Your task to perform on an android device: turn on wifi Image 0: 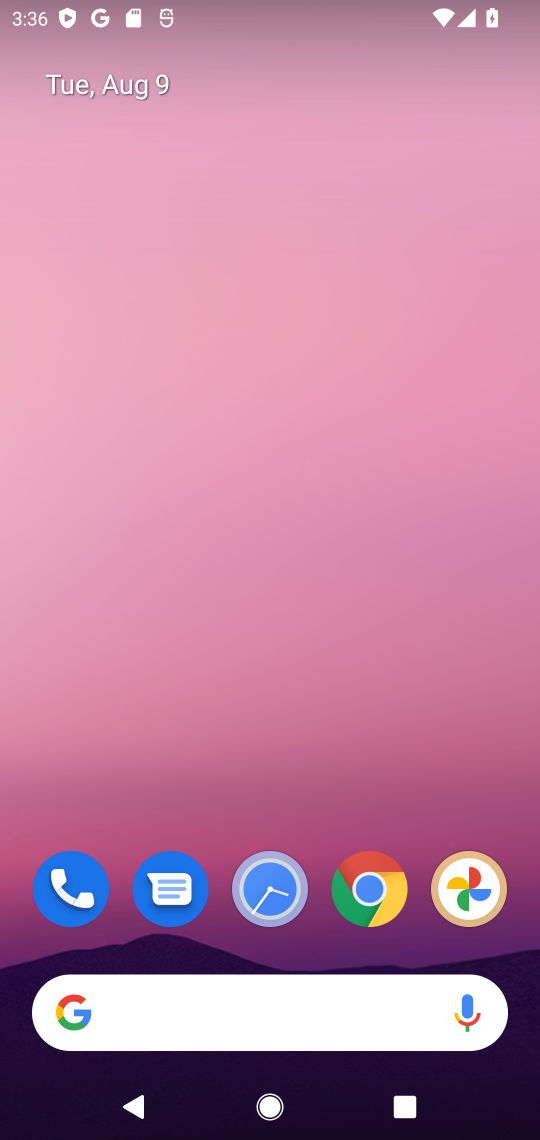
Step 0: drag from (253, 796) to (359, 0)
Your task to perform on an android device: turn on wifi Image 1: 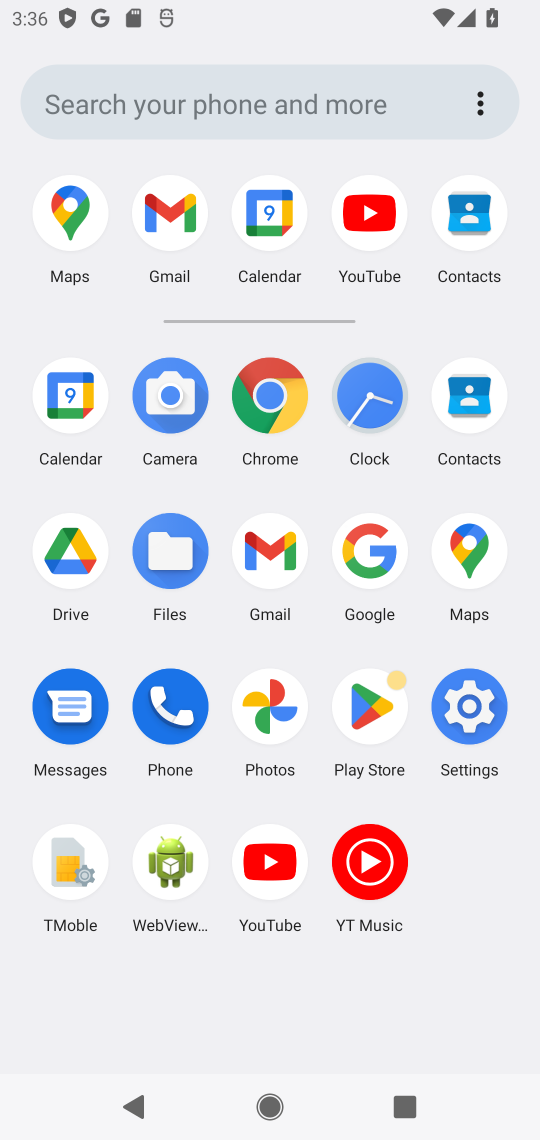
Step 1: click (463, 709)
Your task to perform on an android device: turn on wifi Image 2: 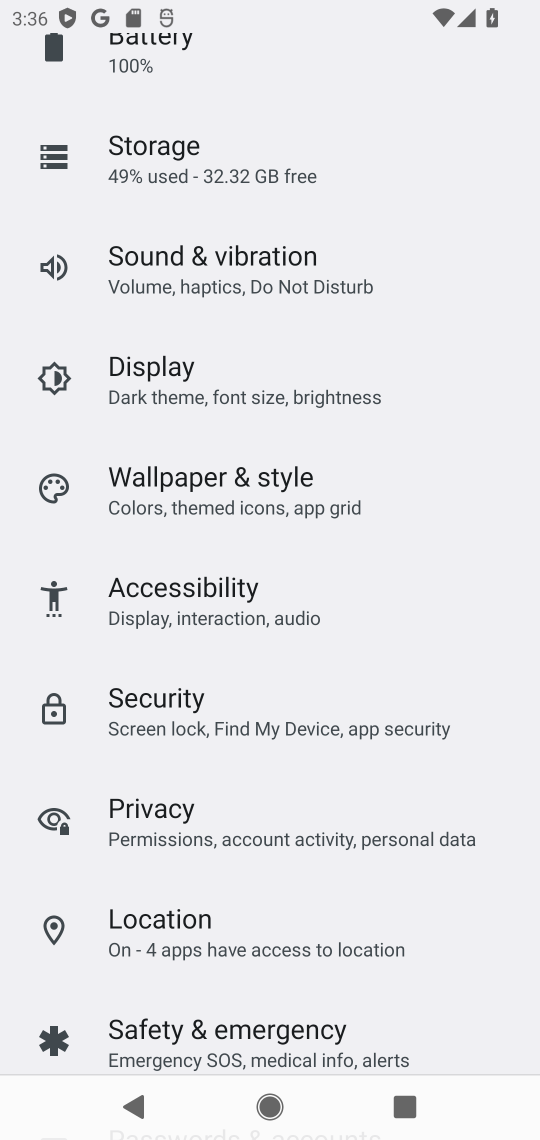
Step 2: drag from (275, 192) to (330, 951)
Your task to perform on an android device: turn on wifi Image 3: 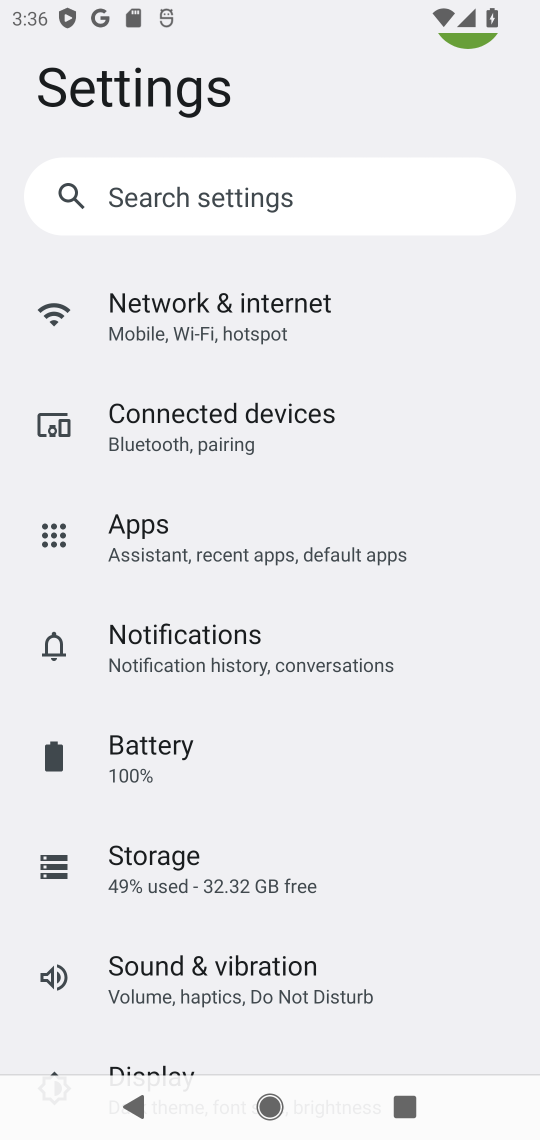
Step 3: click (305, 303)
Your task to perform on an android device: turn on wifi Image 4: 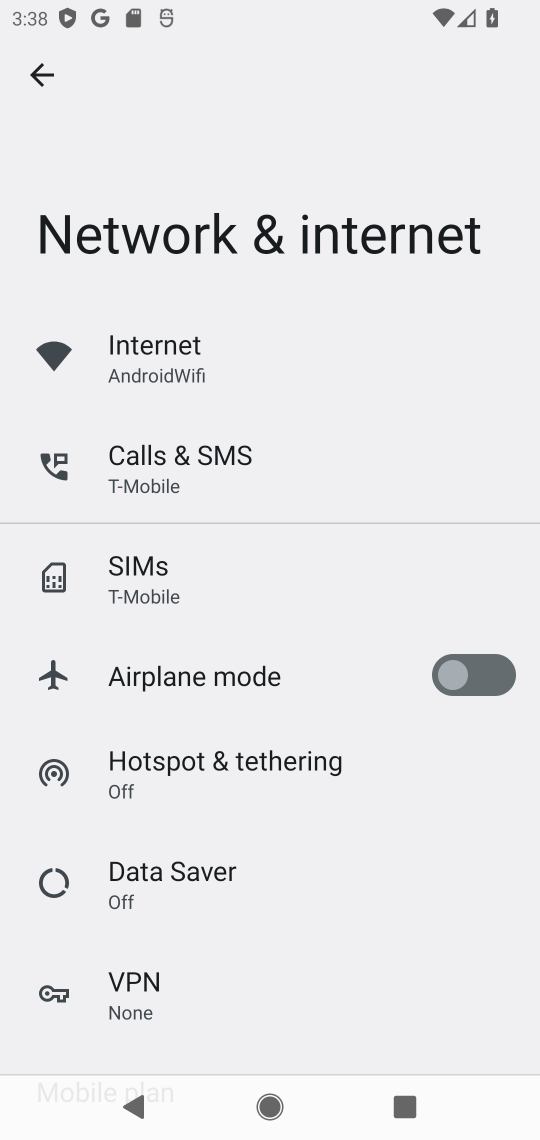
Step 4: task complete